Your task to perform on an android device: Open privacy settings Image 0: 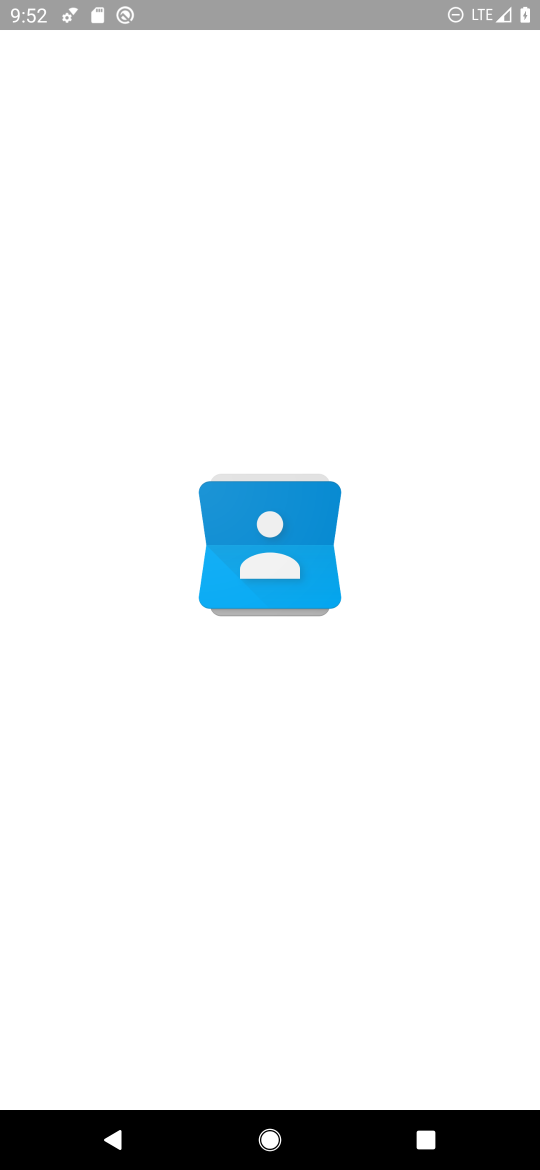
Step 0: press home button
Your task to perform on an android device: Open privacy settings Image 1: 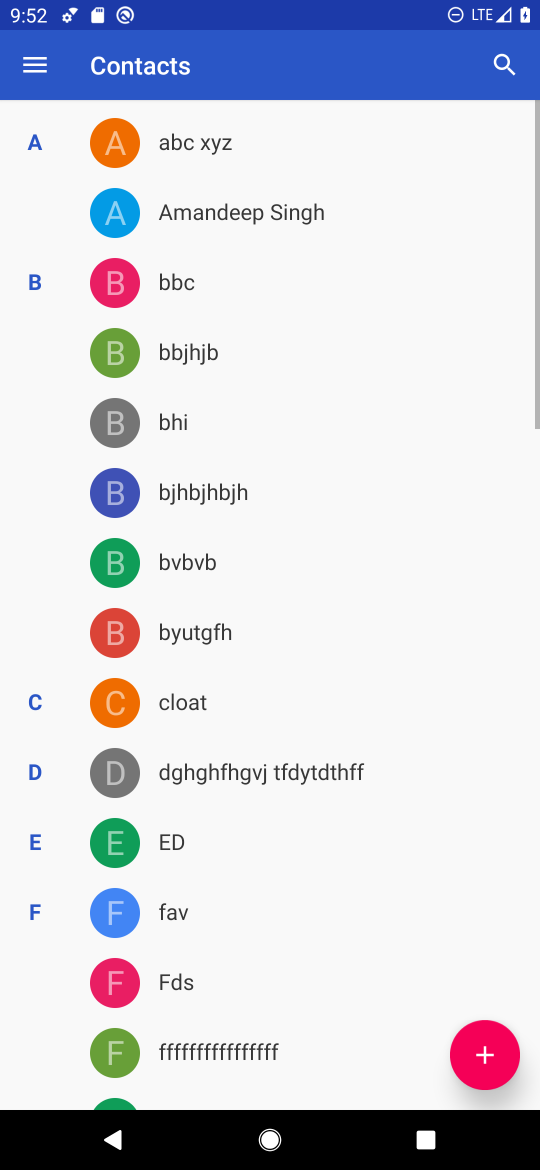
Step 1: press home button
Your task to perform on an android device: Open privacy settings Image 2: 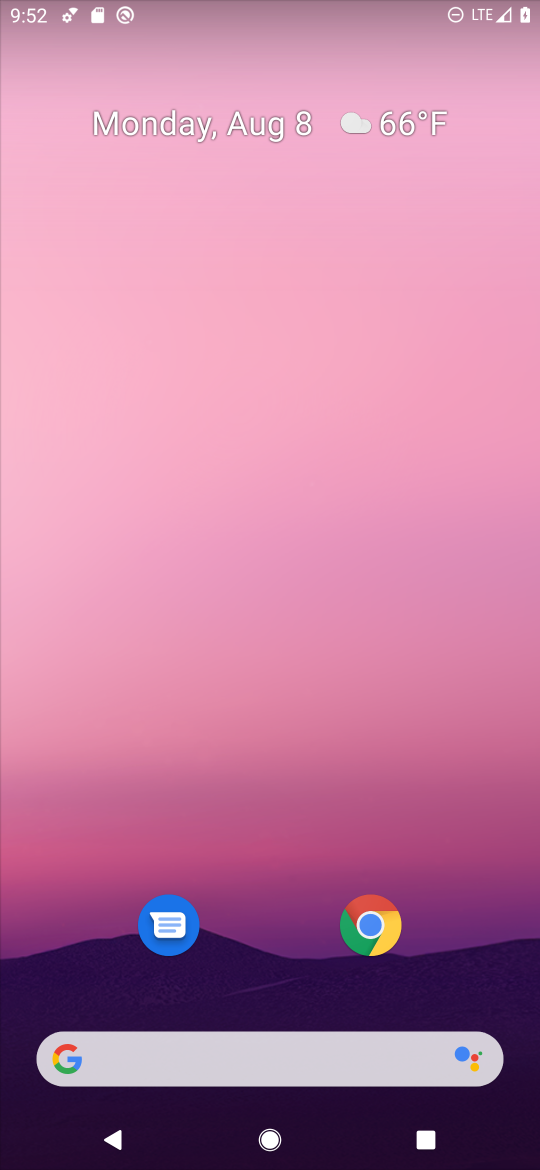
Step 2: drag from (277, 904) to (259, 88)
Your task to perform on an android device: Open privacy settings Image 3: 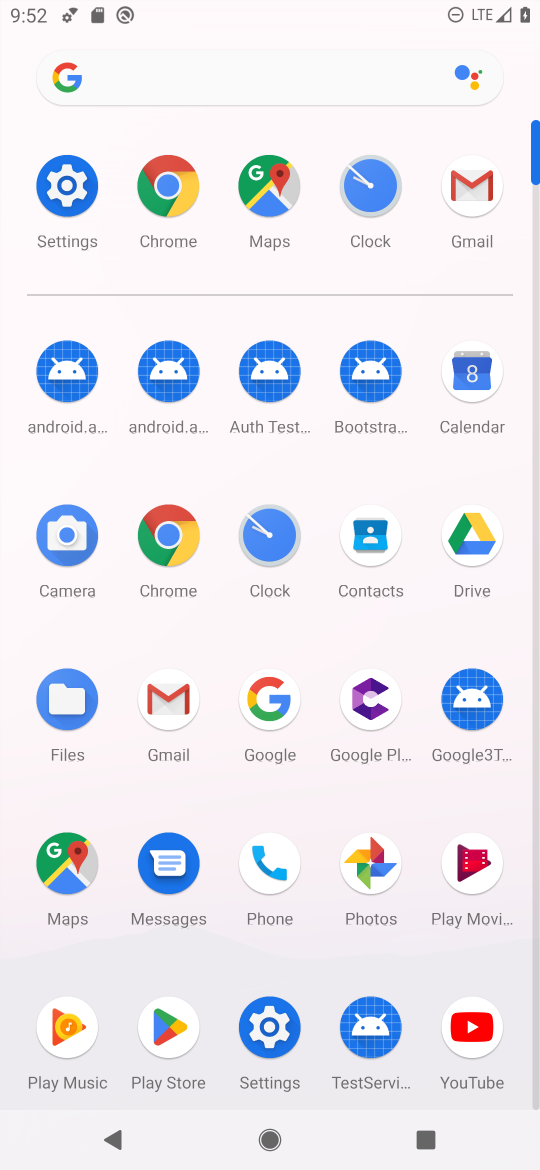
Step 3: click (278, 1018)
Your task to perform on an android device: Open privacy settings Image 4: 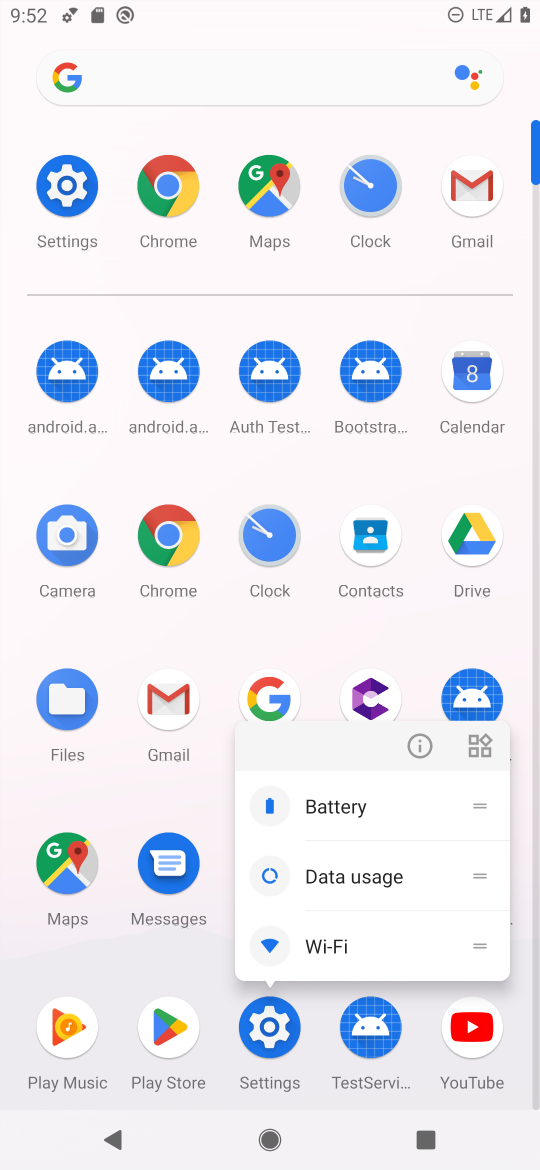
Step 4: click (266, 1021)
Your task to perform on an android device: Open privacy settings Image 5: 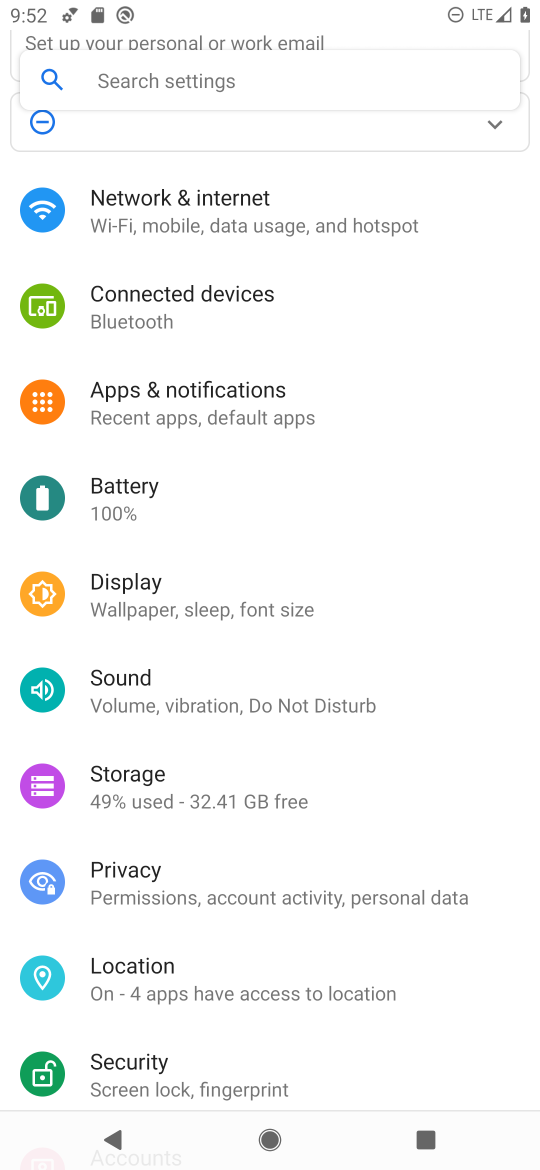
Step 5: click (161, 886)
Your task to perform on an android device: Open privacy settings Image 6: 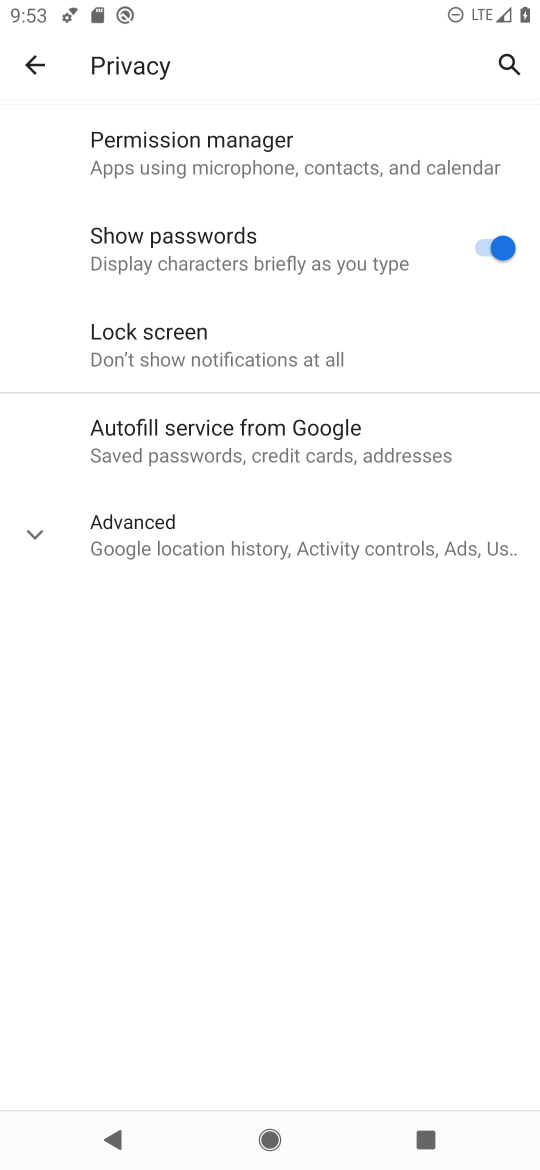
Step 6: task complete